Your task to perform on an android device: star an email in the gmail app Image 0: 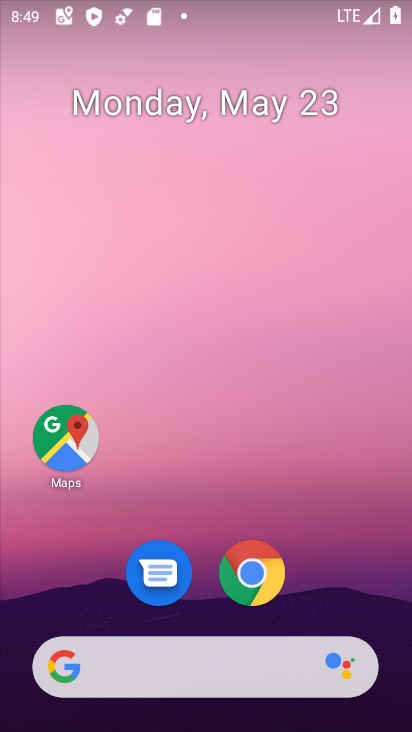
Step 0: drag from (173, 452) to (183, 56)
Your task to perform on an android device: star an email in the gmail app Image 1: 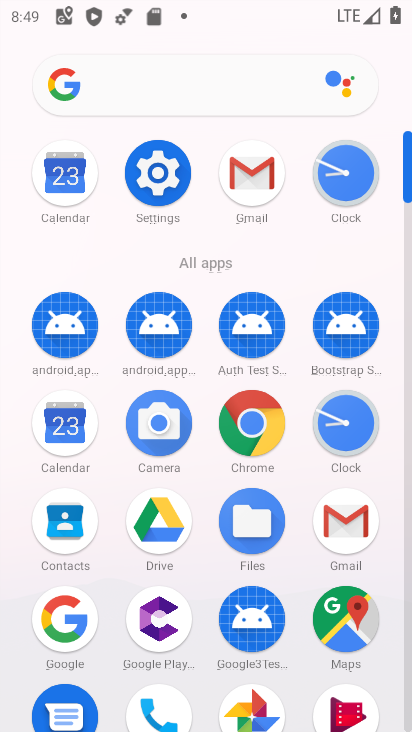
Step 1: click (244, 174)
Your task to perform on an android device: star an email in the gmail app Image 2: 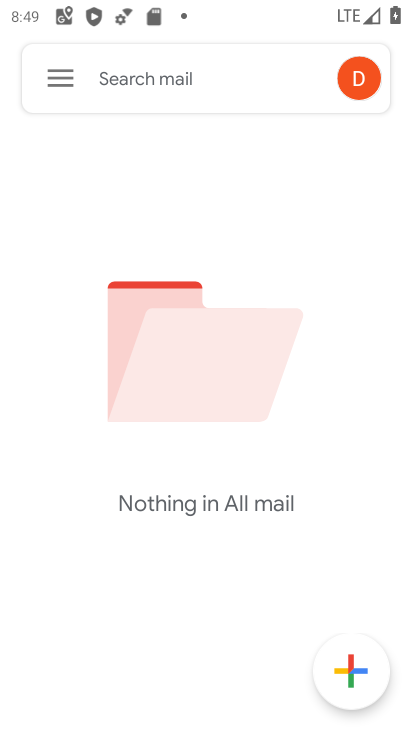
Step 2: task complete